Your task to perform on an android device: install app "Google Chat" Image 0: 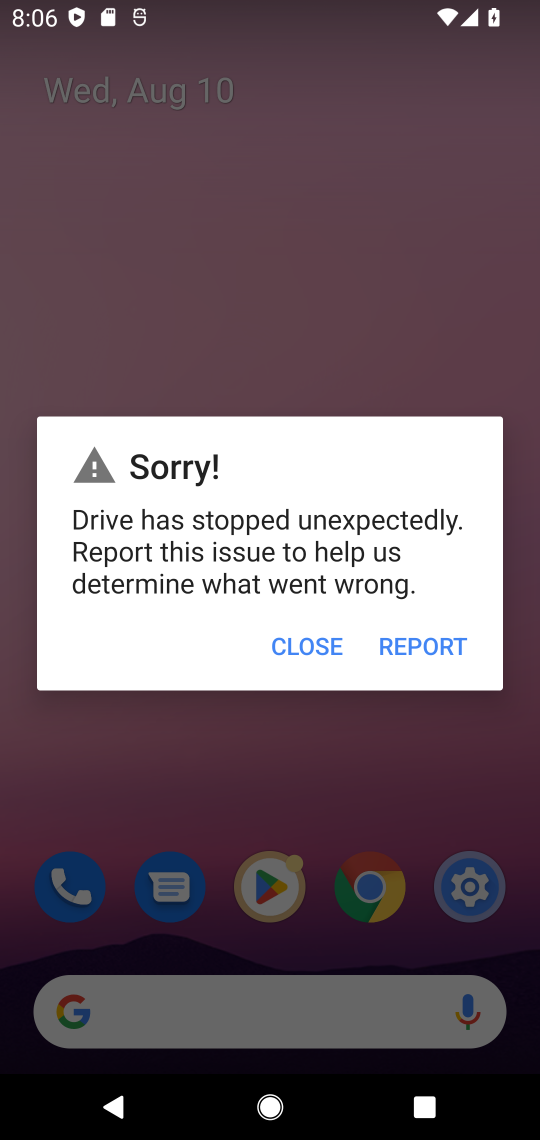
Step 0: press home button
Your task to perform on an android device: install app "Google Chat" Image 1: 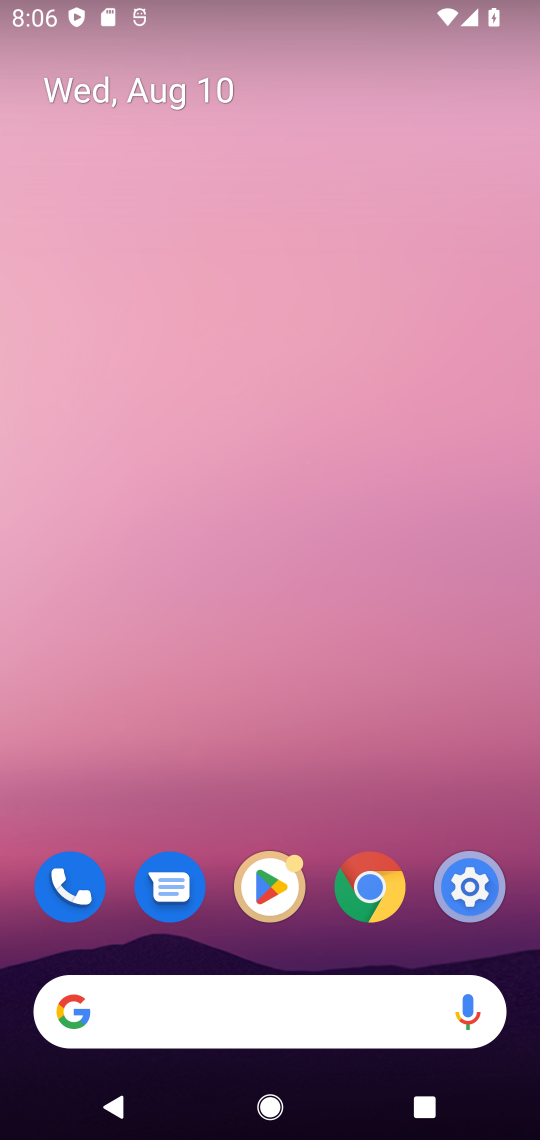
Step 1: drag from (291, 963) to (299, 8)
Your task to perform on an android device: install app "Google Chat" Image 2: 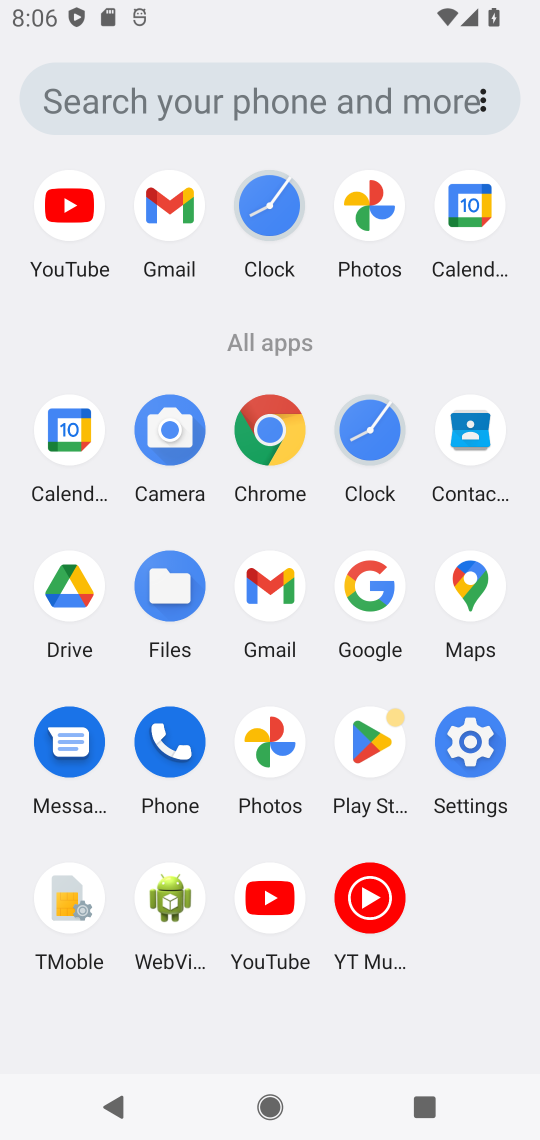
Step 2: click (366, 795)
Your task to perform on an android device: install app "Google Chat" Image 3: 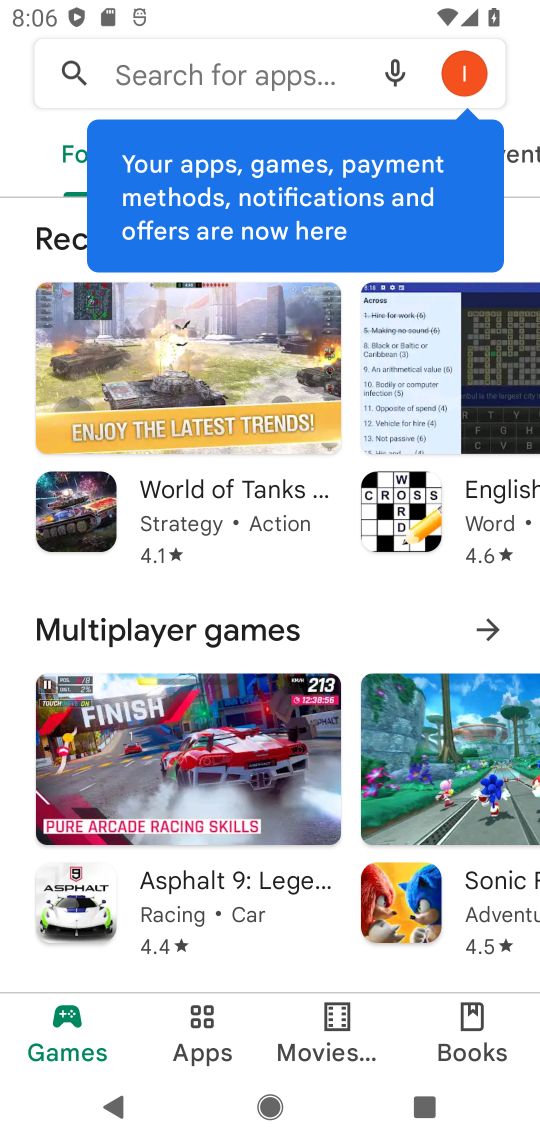
Step 3: click (279, 99)
Your task to perform on an android device: install app "Google Chat" Image 4: 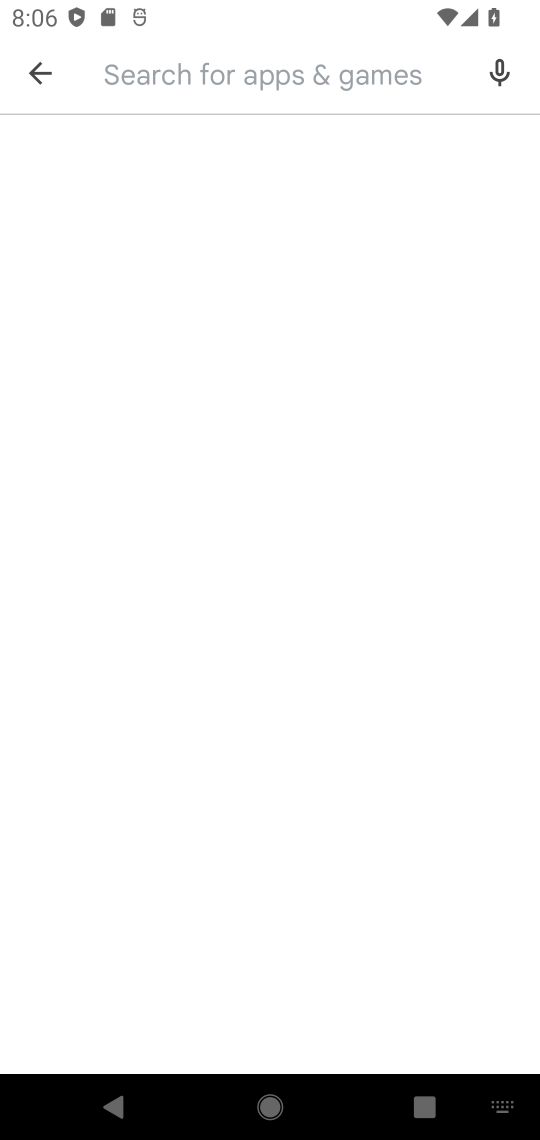
Step 4: type "google chat"
Your task to perform on an android device: install app "Google Chat" Image 5: 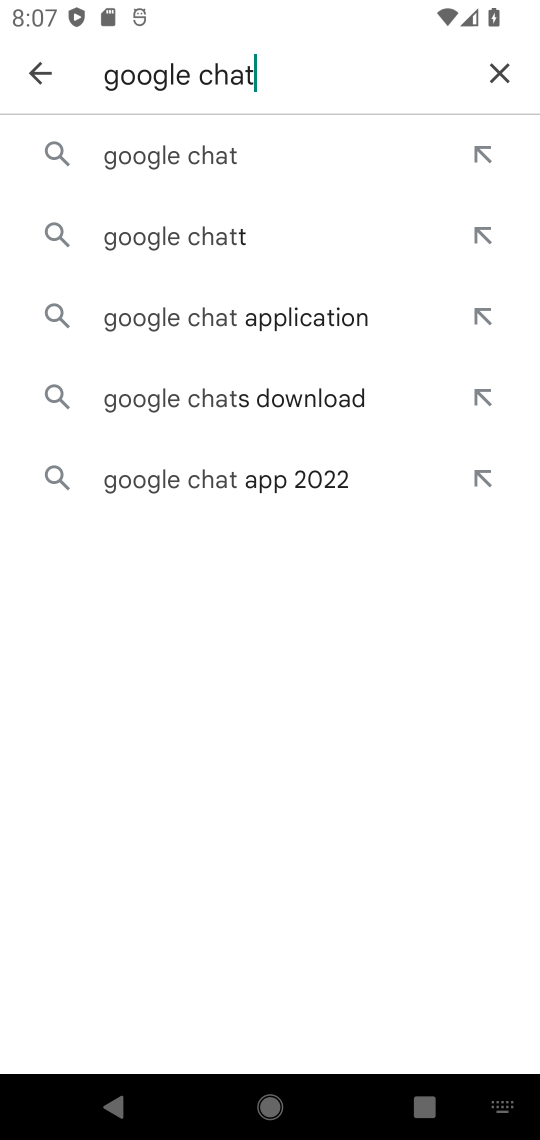
Step 5: click (288, 122)
Your task to perform on an android device: install app "Google Chat" Image 6: 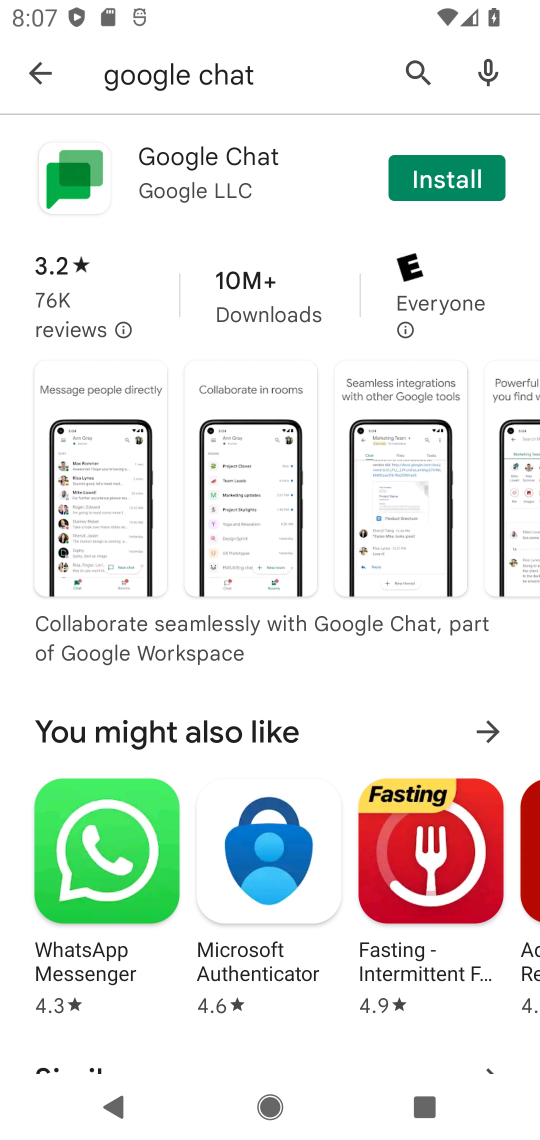
Step 6: task complete